Your task to perform on an android device: toggle translation in the chrome app Image 0: 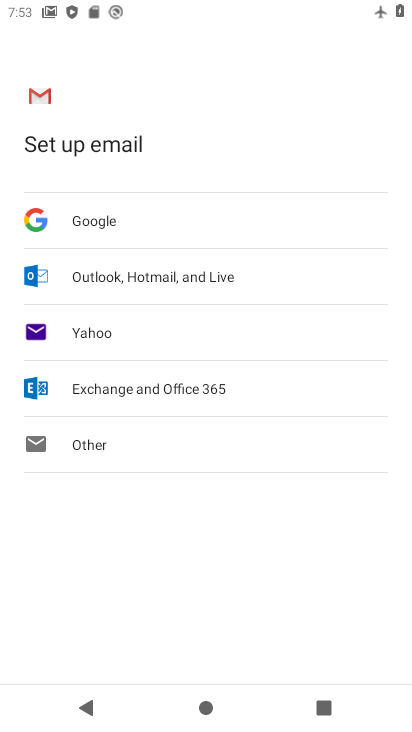
Step 0: press back button
Your task to perform on an android device: toggle translation in the chrome app Image 1: 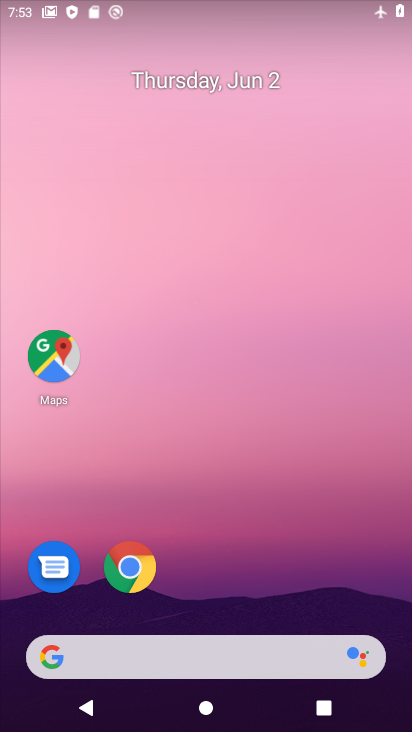
Step 1: click (132, 566)
Your task to perform on an android device: toggle translation in the chrome app Image 2: 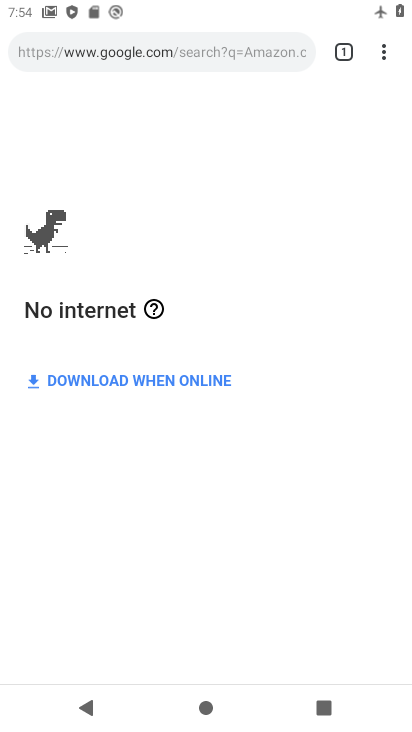
Step 2: click (382, 51)
Your task to perform on an android device: toggle translation in the chrome app Image 3: 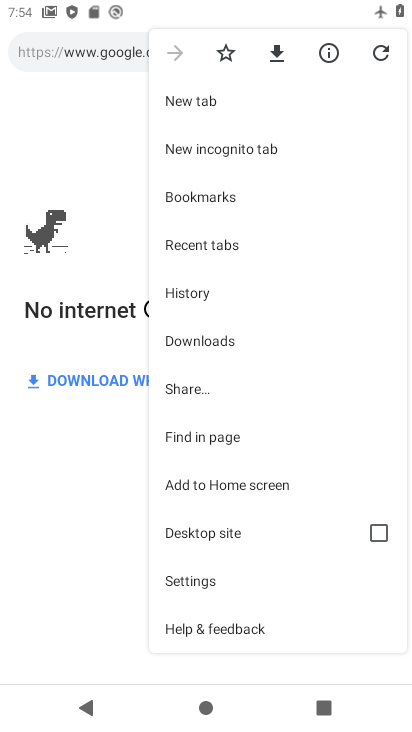
Step 3: click (207, 587)
Your task to perform on an android device: toggle translation in the chrome app Image 4: 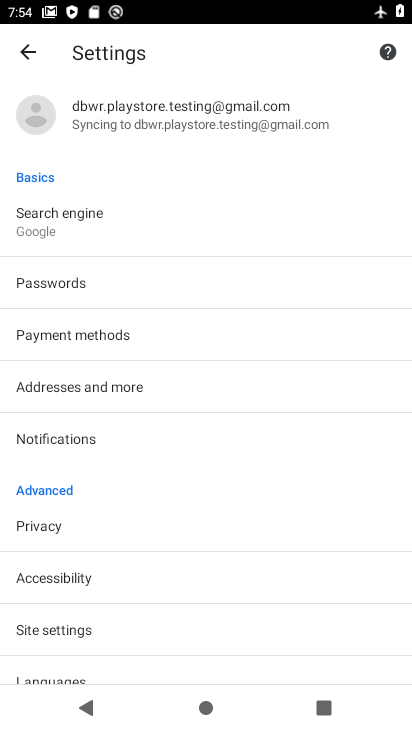
Step 4: drag from (124, 478) to (118, 417)
Your task to perform on an android device: toggle translation in the chrome app Image 5: 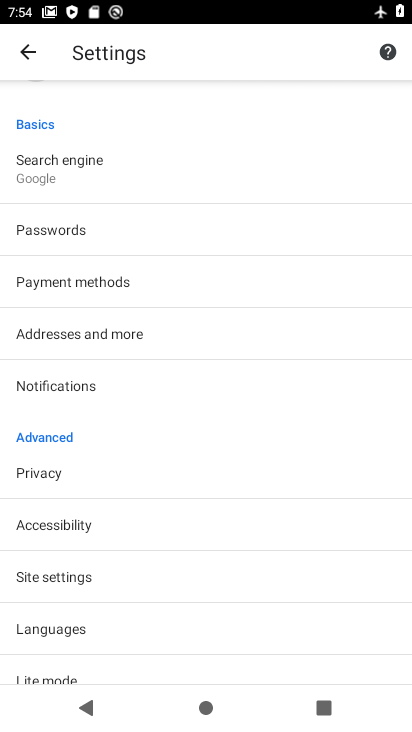
Step 5: drag from (125, 522) to (137, 454)
Your task to perform on an android device: toggle translation in the chrome app Image 6: 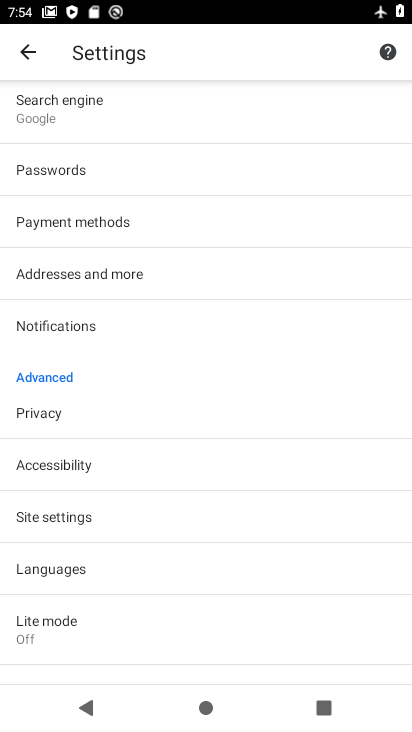
Step 6: click (63, 569)
Your task to perform on an android device: toggle translation in the chrome app Image 7: 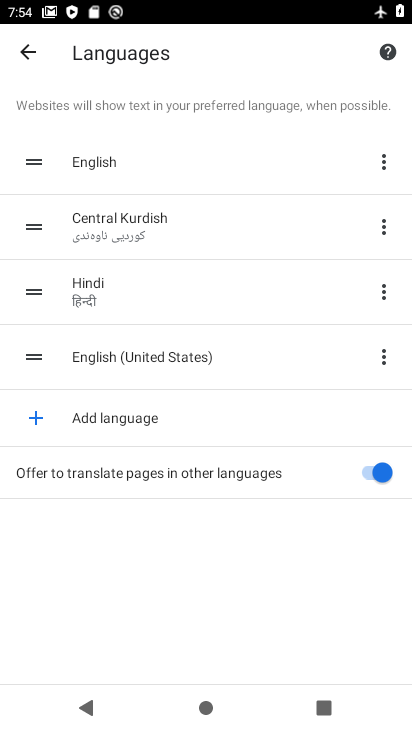
Step 7: click (359, 473)
Your task to perform on an android device: toggle translation in the chrome app Image 8: 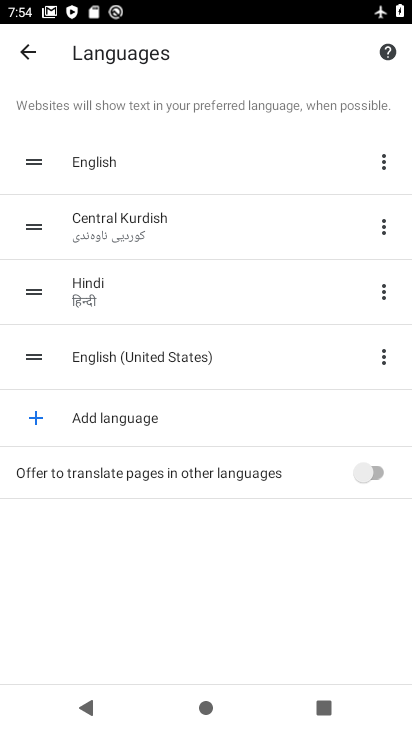
Step 8: task complete